Your task to perform on an android device: turn smart compose on in the gmail app Image 0: 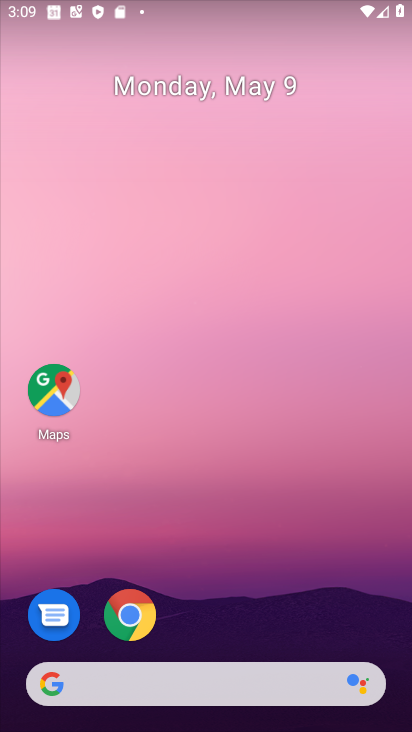
Step 0: drag from (249, 444) to (236, 226)
Your task to perform on an android device: turn smart compose on in the gmail app Image 1: 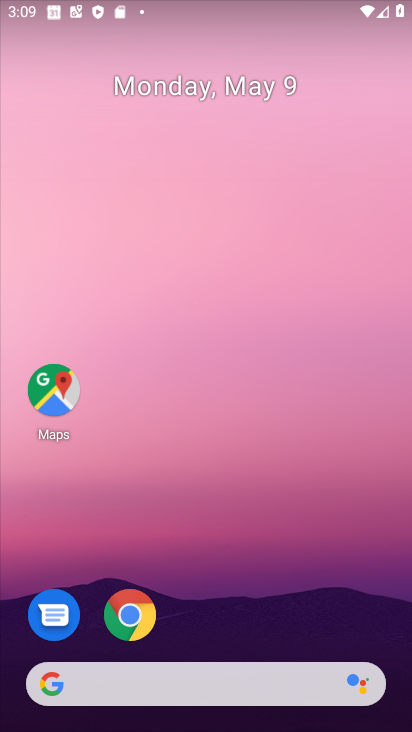
Step 1: drag from (237, 633) to (248, 212)
Your task to perform on an android device: turn smart compose on in the gmail app Image 2: 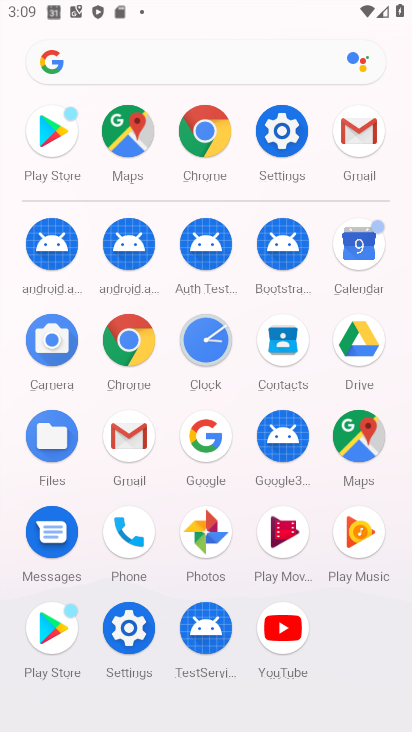
Step 2: click (355, 129)
Your task to perform on an android device: turn smart compose on in the gmail app Image 3: 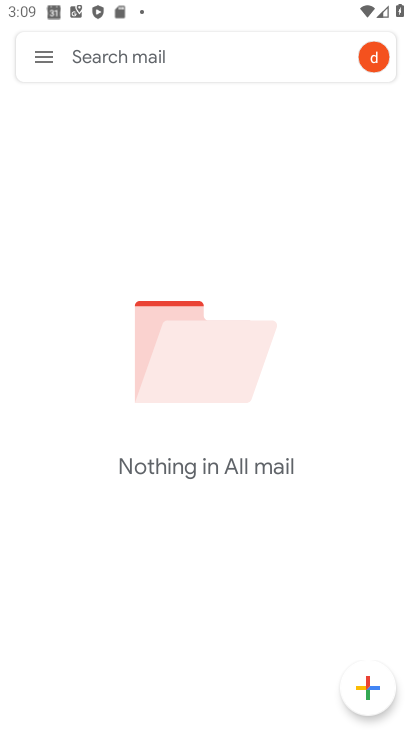
Step 3: click (42, 50)
Your task to perform on an android device: turn smart compose on in the gmail app Image 4: 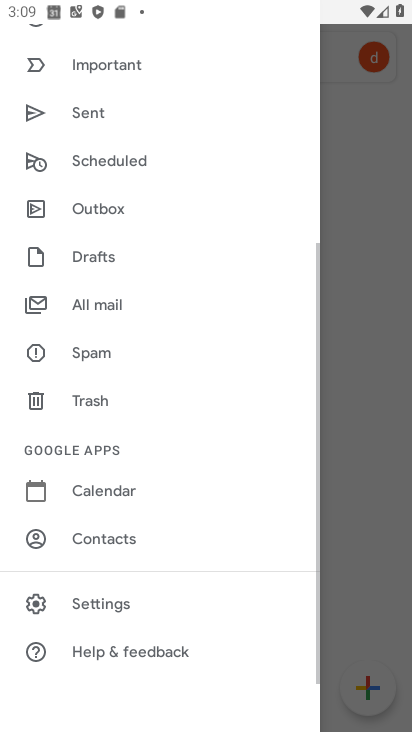
Step 4: click (104, 594)
Your task to perform on an android device: turn smart compose on in the gmail app Image 5: 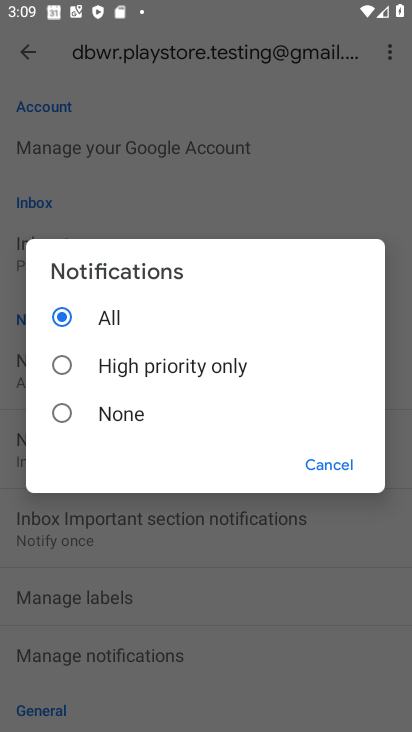
Step 5: click (316, 461)
Your task to perform on an android device: turn smart compose on in the gmail app Image 6: 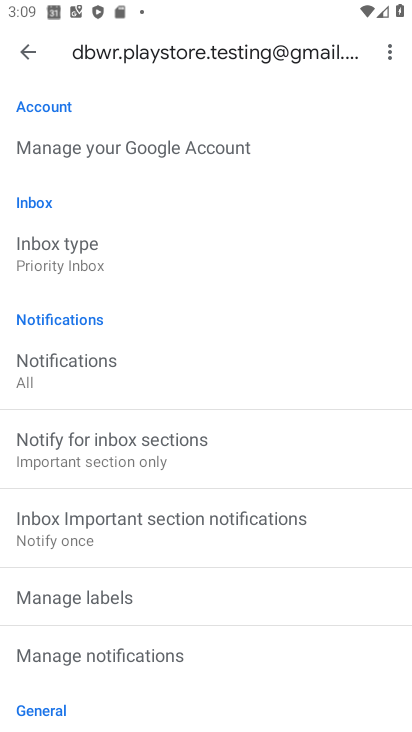
Step 6: task complete